Your task to perform on an android device: turn on wifi Image 0: 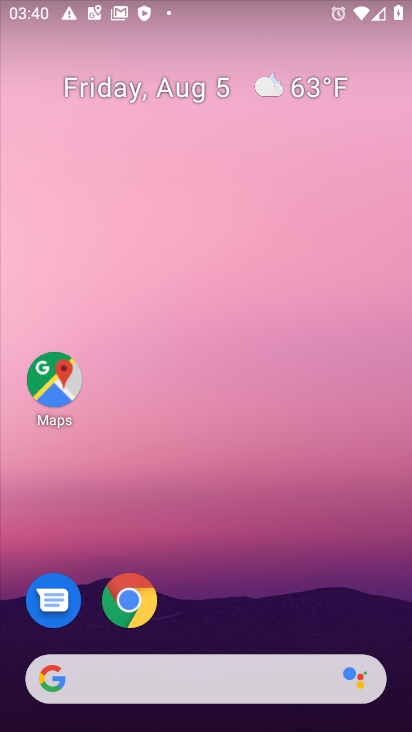
Step 0: drag from (176, 683) to (201, 60)
Your task to perform on an android device: turn on wifi Image 1: 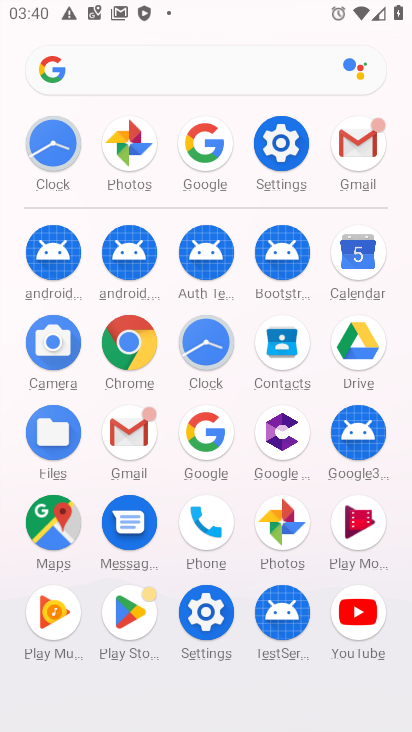
Step 1: click (280, 144)
Your task to perform on an android device: turn on wifi Image 2: 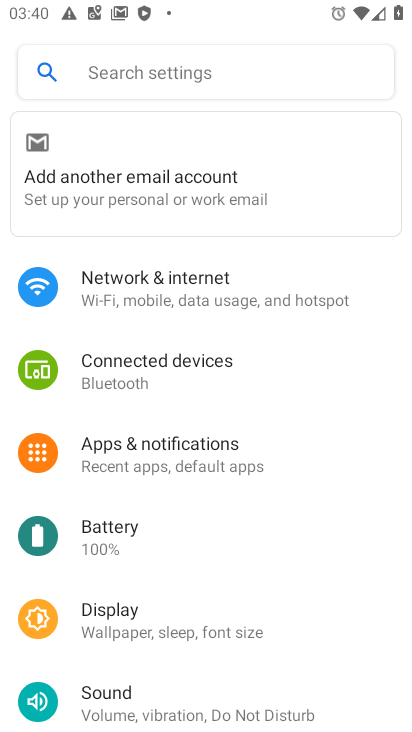
Step 2: click (164, 289)
Your task to perform on an android device: turn on wifi Image 3: 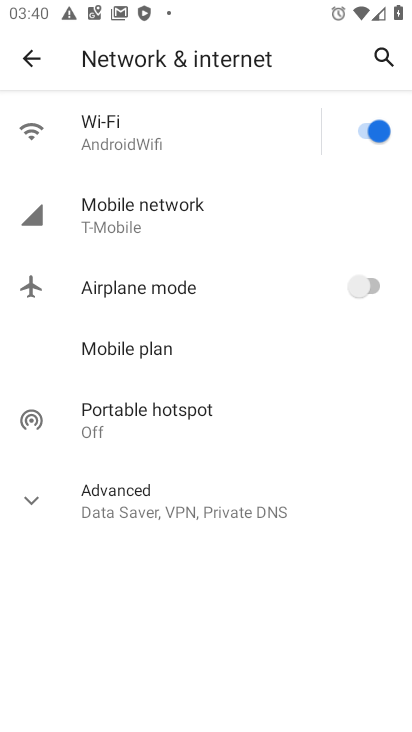
Step 3: task complete